Your task to perform on an android device: open app "Pinterest" (install if not already installed) and go to login screen Image 0: 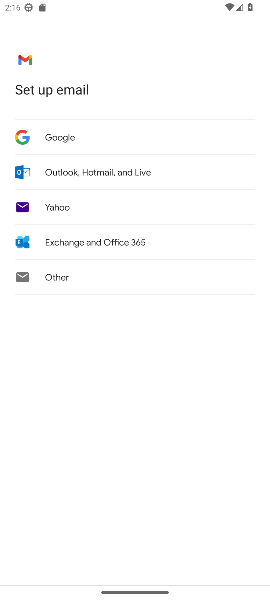
Step 0: press home button
Your task to perform on an android device: open app "Pinterest" (install if not already installed) and go to login screen Image 1: 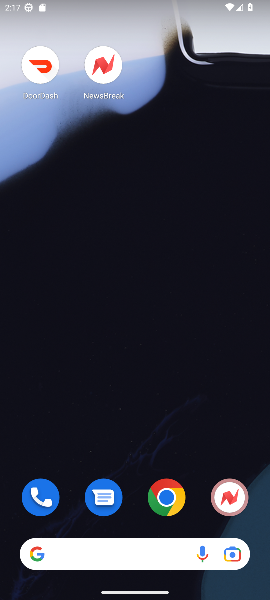
Step 1: drag from (137, 524) to (174, 185)
Your task to perform on an android device: open app "Pinterest" (install if not already installed) and go to login screen Image 2: 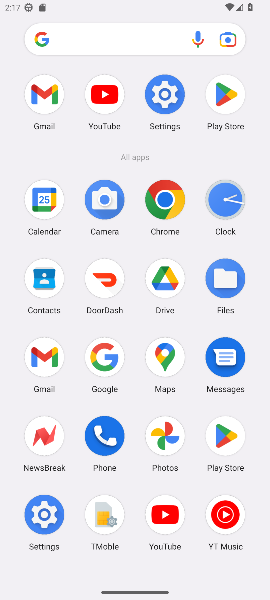
Step 2: click (229, 84)
Your task to perform on an android device: open app "Pinterest" (install if not already installed) and go to login screen Image 3: 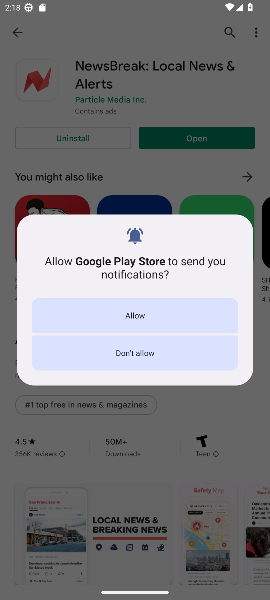
Step 3: click (83, 151)
Your task to perform on an android device: open app "Pinterest" (install if not already installed) and go to login screen Image 4: 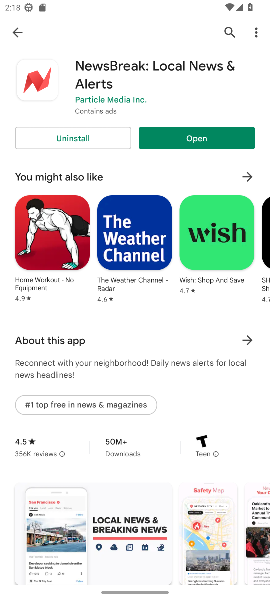
Step 4: click (9, 24)
Your task to perform on an android device: open app "Pinterest" (install if not already installed) and go to login screen Image 5: 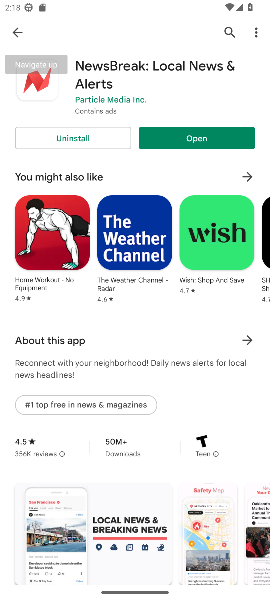
Step 5: click (14, 28)
Your task to perform on an android device: open app "Pinterest" (install if not already installed) and go to login screen Image 6: 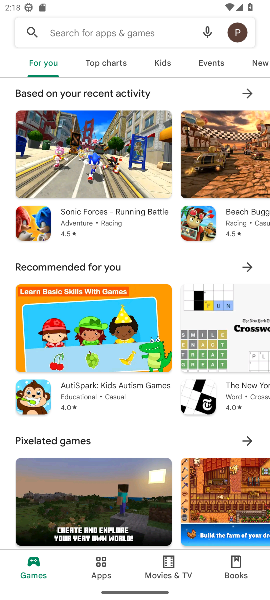
Step 6: click (63, 28)
Your task to perform on an android device: open app "Pinterest" (install if not already installed) and go to login screen Image 7: 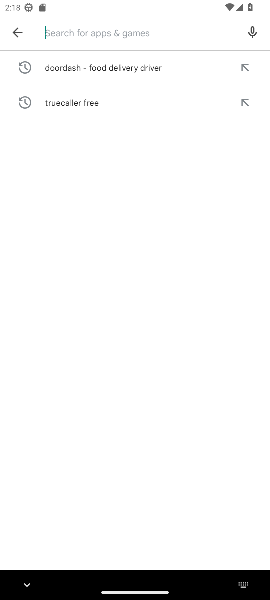
Step 7: click (111, 20)
Your task to perform on an android device: open app "Pinterest" (install if not already installed) and go to login screen Image 8: 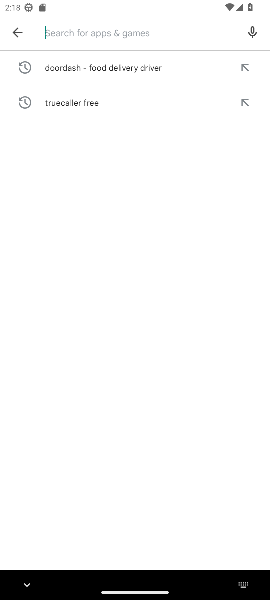
Step 8: type "Pinterest "
Your task to perform on an android device: open app "Pinterest" (install if not already installed) and go to login screen Image 9: 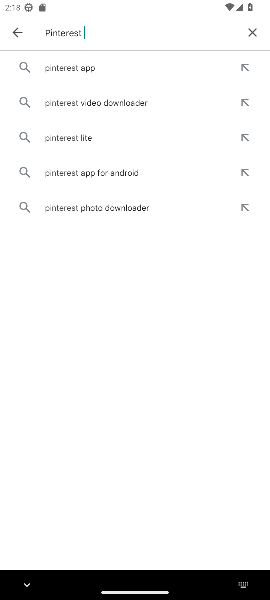
Step 9: click (100, 74)
Your task to perform on an android device: open app "Pinterest" (install if not already installed) and go to login screen Image 10: 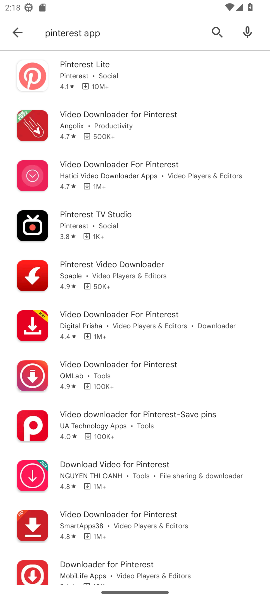
Step 10: click (100, 74)
Your task to perform on an android device: open app "Pinterest" (install if not already installed) and go to login screen Image 11: 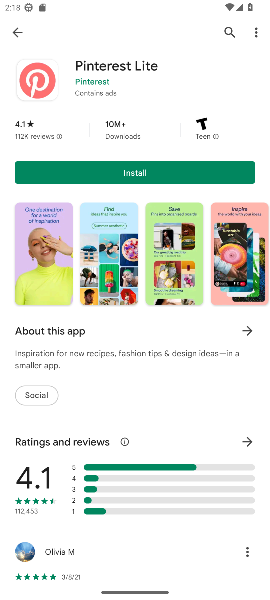
Step 11: click (138, 167)
Your task to perform on an android device: open app "Pinterest" (install if not already installed) and go to login screen Image 12: 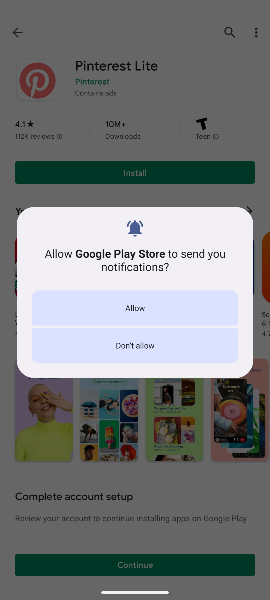
Step 12: click (140, 303)
Your task to perform on an android device: open app "Pinterest" (install if not already installed) and go to login screen Image 13: 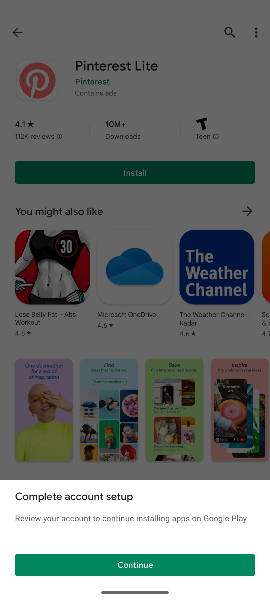
Step 13: task complete